Your task to perform on an android device: Show me popular games on the Play Store Image 0: 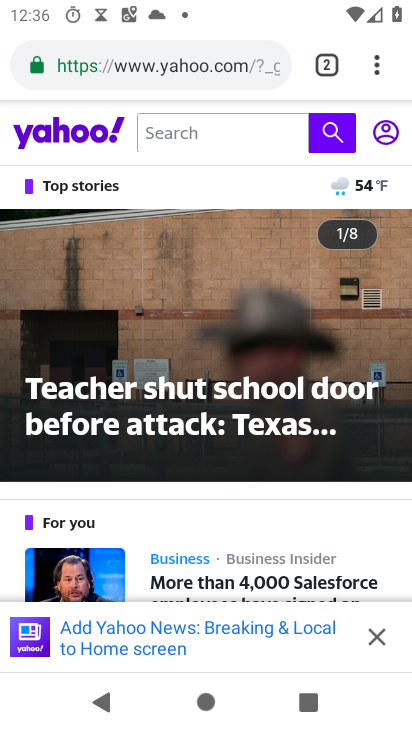
Step 0: press home button
Your task to perform on an android device: Show me popular games on the Play Store Image 1: 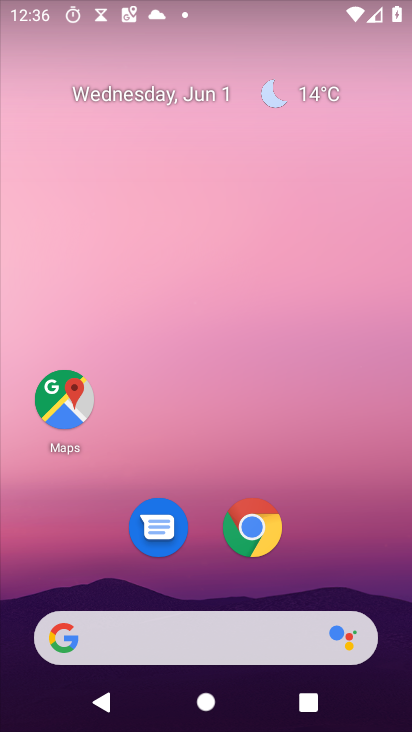
Step 1: drag from (342, 588) to (344, 8)
Your task to perform on an android device: Show me popular games on the Play Store Image 2: 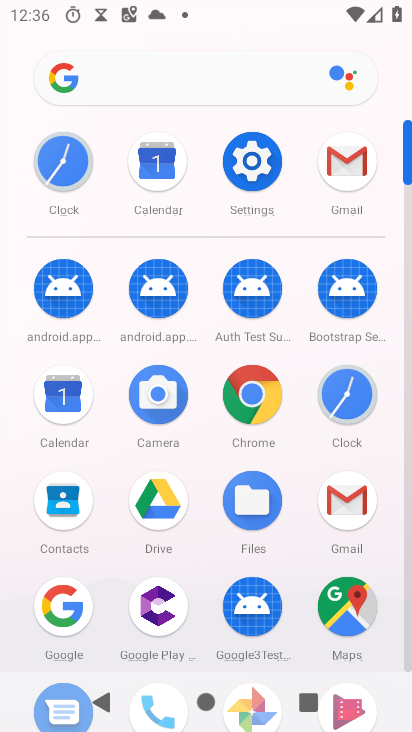
Step 2: drag from (405, 540) to (405, 501)
Your task to perform on an android device: Show me popular games on the Play Store Image 3: 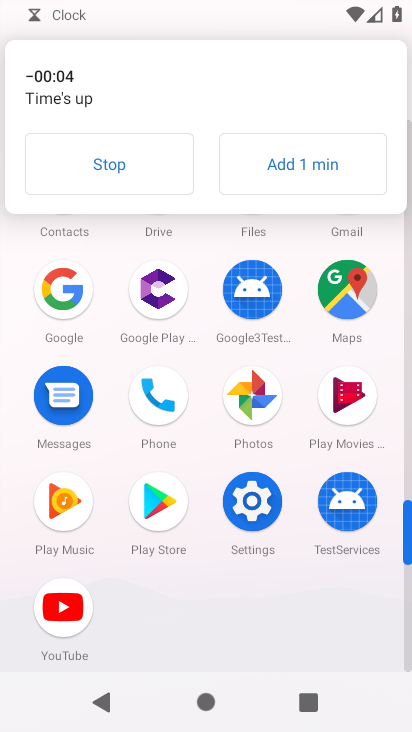
Step 3: click (153, 502)
Your task to perform on an android device: Show me popular games on the Play Store Image 4: 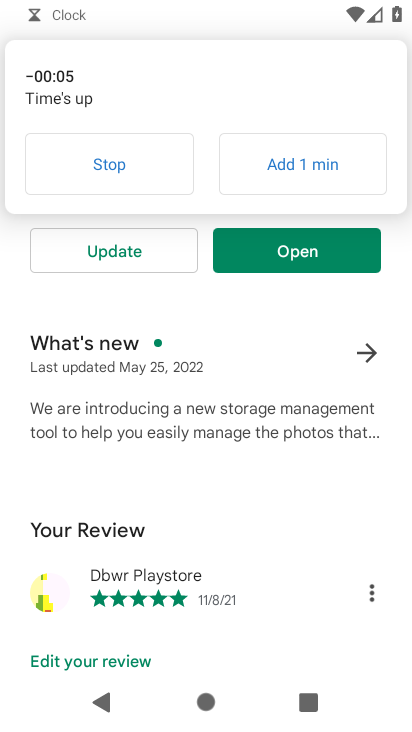
Step 4: click (126, 157)
Your task to perform on an android device: Show me popular games on the Play Store Image 5: 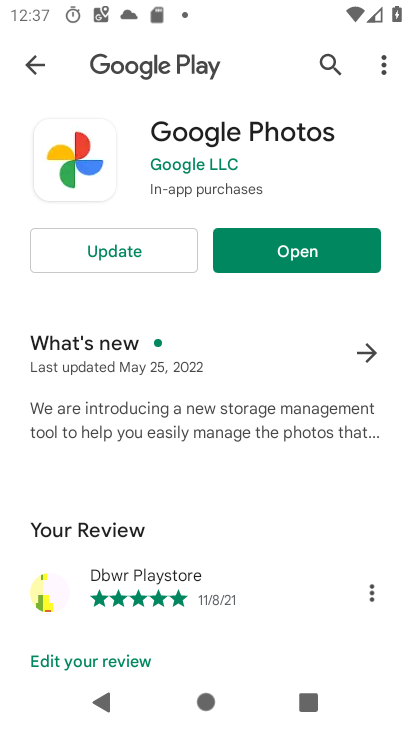
Step 5: click (26, 62)
Your task to perform on an android device: Show me popular games on the Play Store Image 6: 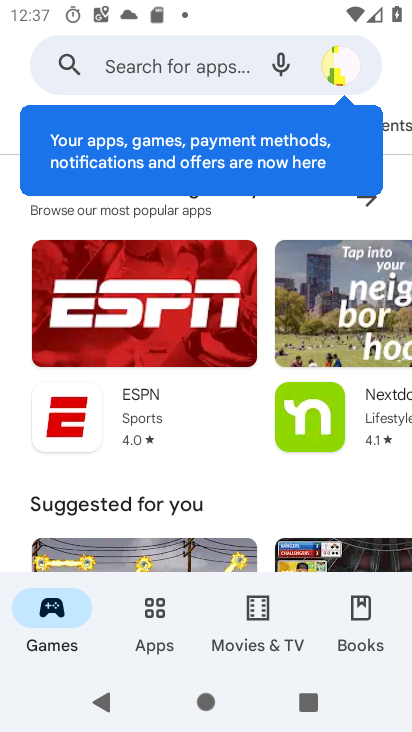
Step 6: drag from (201, 485) to (176, 87)
Your task to perform on an android device: Show me popular games on the Play Store Image 7: 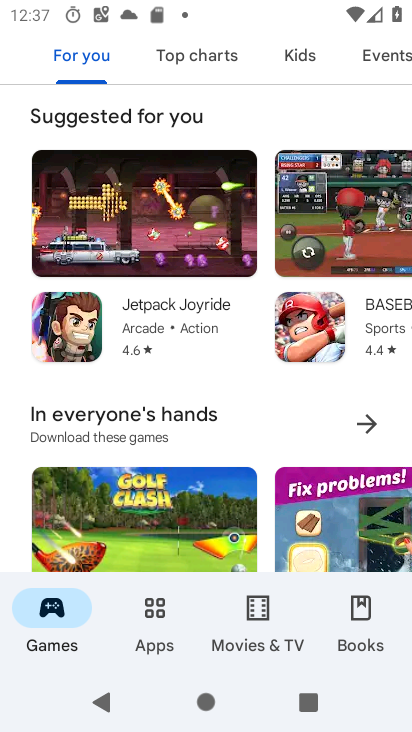
Step 7: drag from (191, 391) to (153, 63)
Your task to perform on an android device: Show me popular games on the Play Store Image 8: 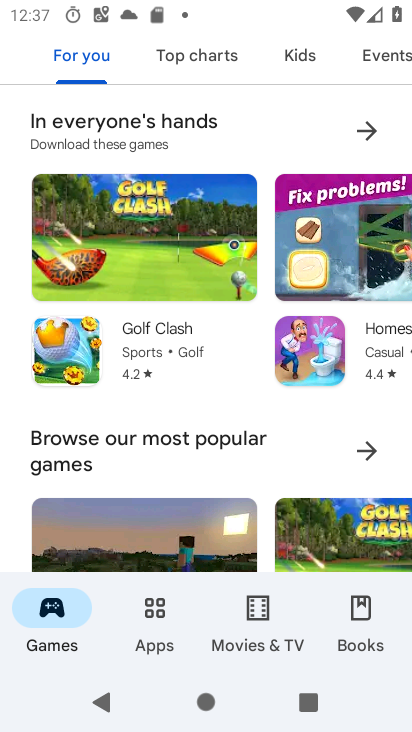
Step 8: drag from (198, 439) to (165, 158)
Your task to perform on an android device: Show me popular games on the Play Store Image 9: 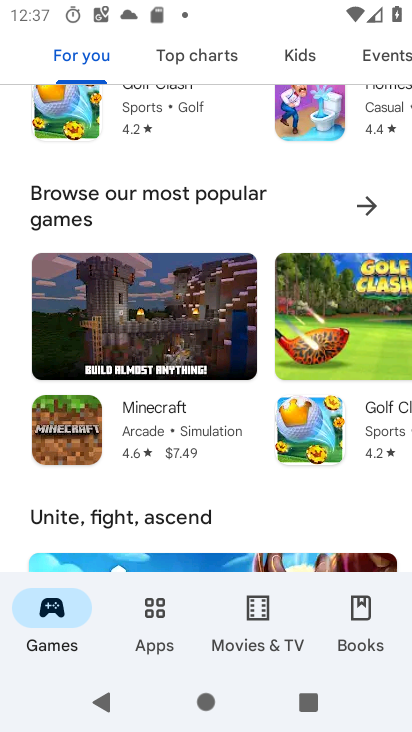
Step 9: click (377, 208)
Your task to perform on an android device: Show me popular games on the Play Store Image 10: 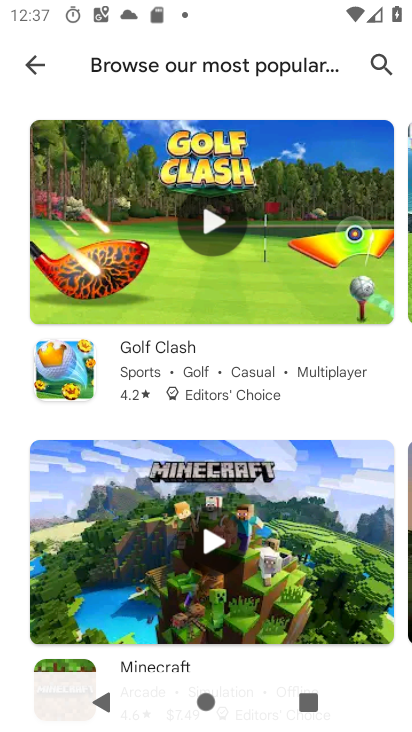
Step 10: task complete